Your task to perform on an android device: Check the weather Image 0: 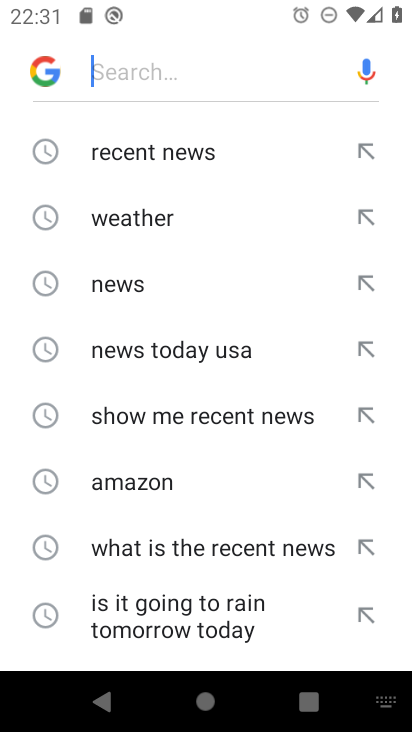
Step 0: press home button
Your task to perform on an android device: Check the weather Image 1: 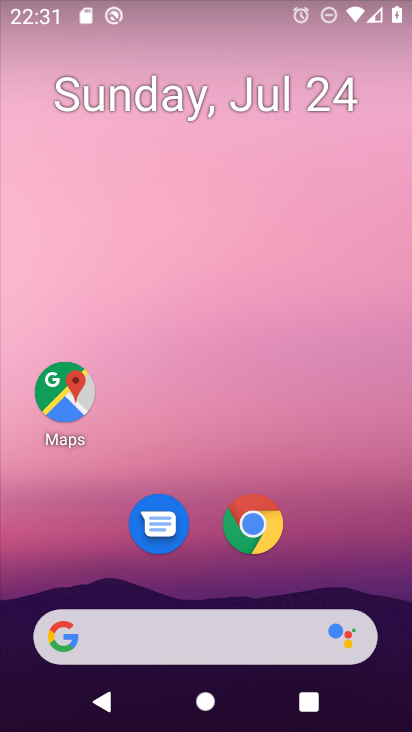
Step 1: click (156, 621)
Your task to perform on an android device: Check the weather Image 2: 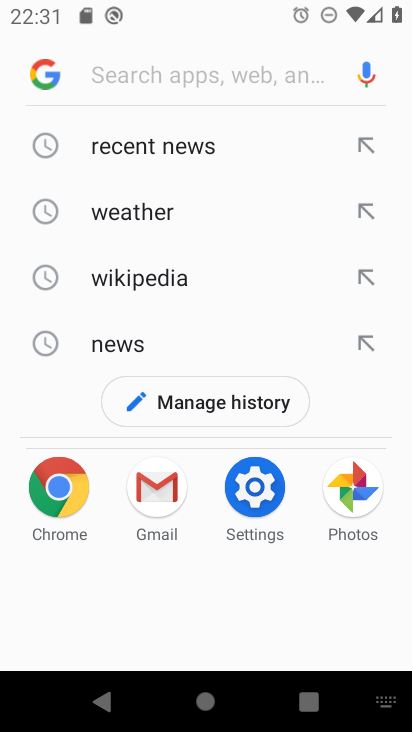
Step 2: click (143, 214)
Your task to perform on an android device: Check the weather Image 3: 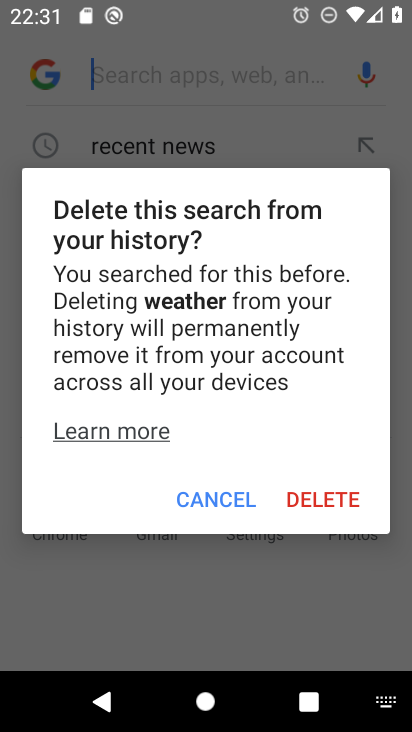
Step 3: click (214, 510)
Your task to perform on an android device: Check the weather Image 4: 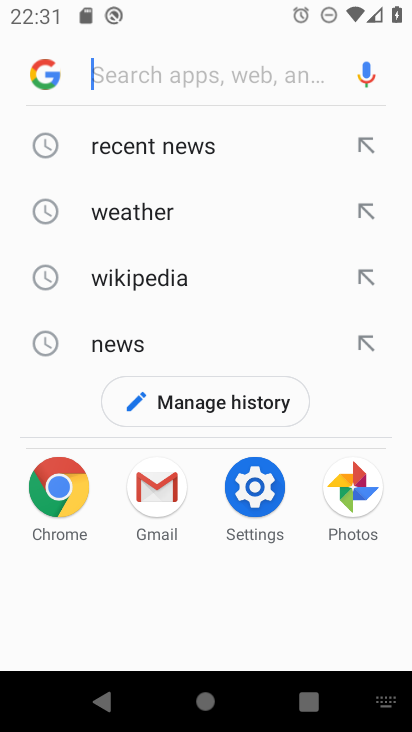
Step 4: click (126, 214)
Your task to perform on an android device: Check the weather Image 5: 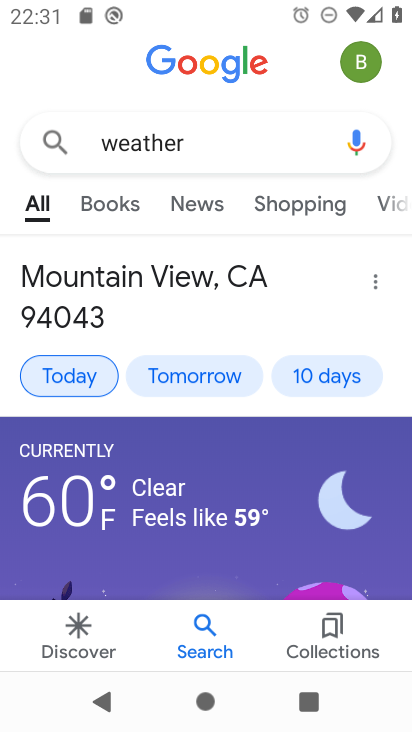
Step 5: task complete